Your task to perform on an android device: Go to ESPN.com Image 0: 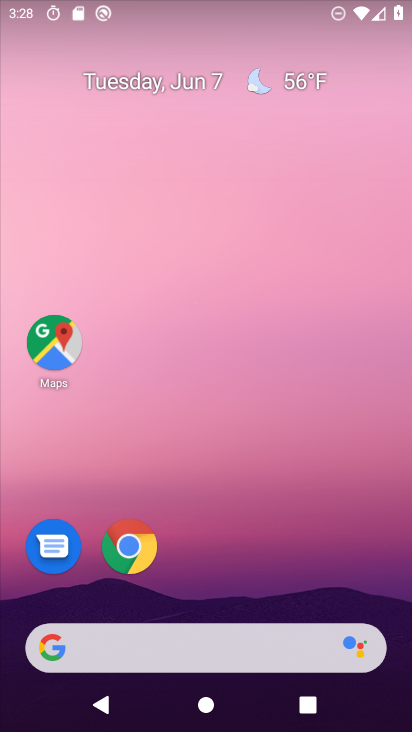
Step 0: drag from (273, 442) to (252, 17)
Your task to perform on an android device: Go to ESPN.com Image 1: 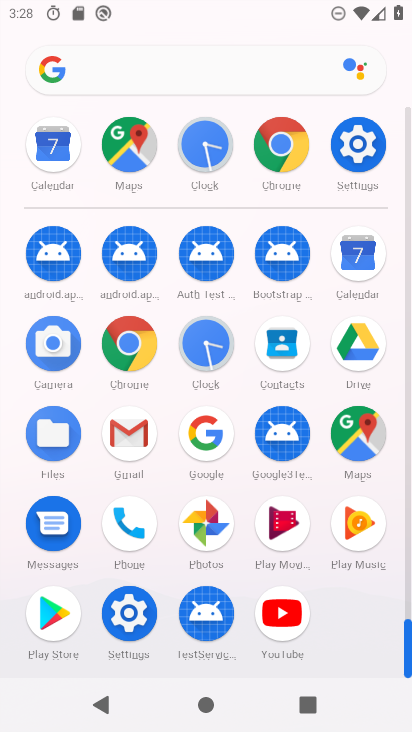
Step 1: drag from (6, 549) to (24, 259)
Your task to perform on an android device: Go to ESPN.com Image 2: 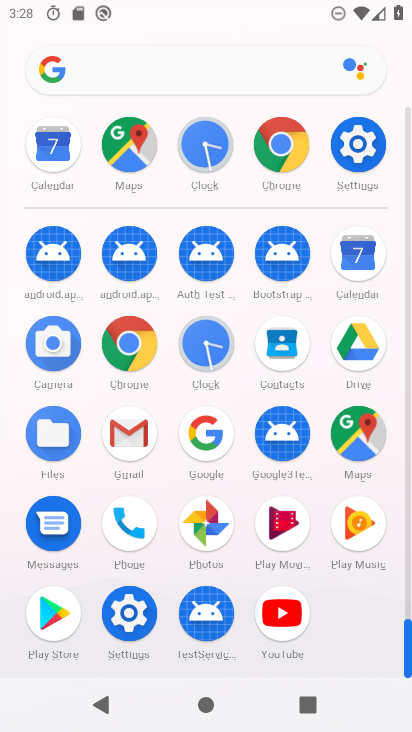
Step 2: click (126, 341)
Your task to perform on an android device: Go to ESPN.com Image 3: 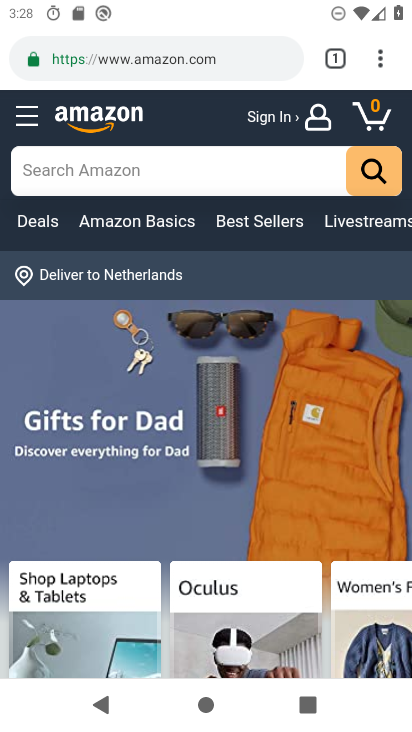
Step 3: click (176, 57)
Your task to perform on an android device: Go to ESPN.com Image 4: 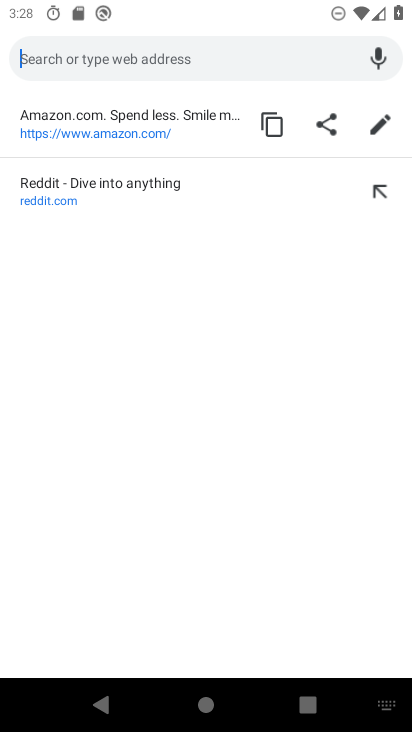
Step 4: type "ESPN.com"
Your task to perform on an android device: Go to ESPN.com Image 5: 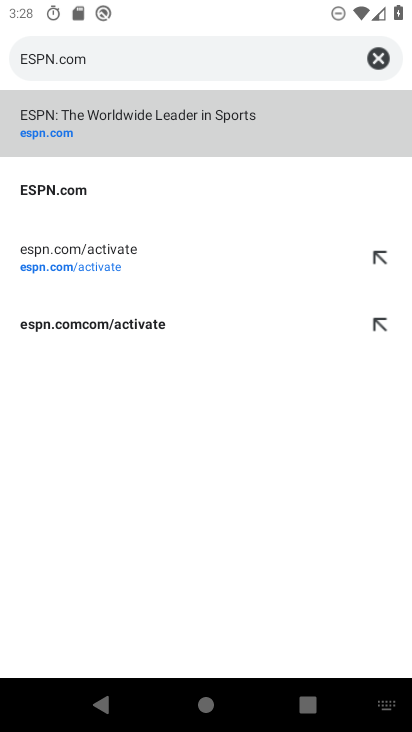
Step 5: click (125, 118)
Your task to perform on an android device: Go to ESPN.com Image 6: 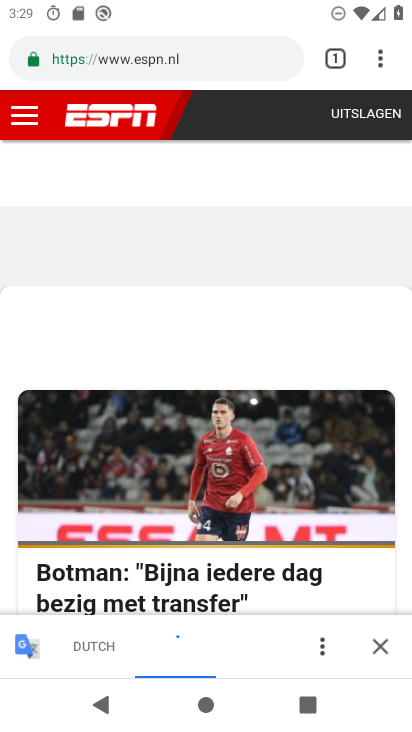
Step 6: task complete